Your task to perform on an android device: change the clock display to analog Image 0: 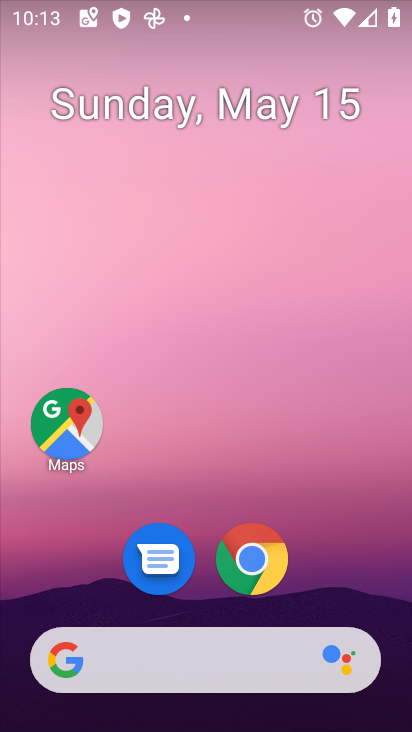
Step 0: drag from (319, 428) to (318, 353)
Your task to perform on an android device: change the clock display to analog Image 1: 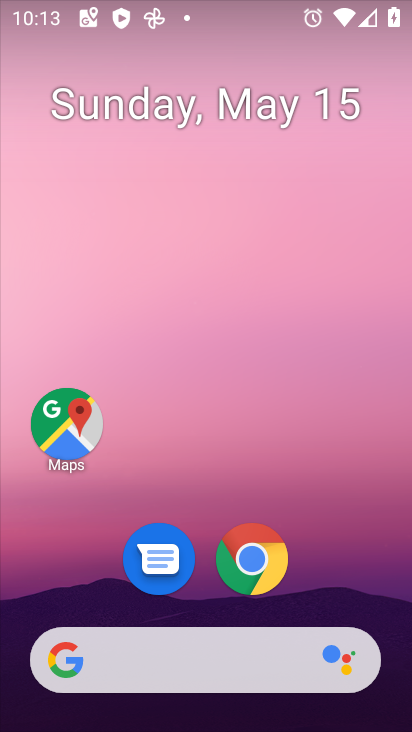
Step 1: drag from (317, 543) to (288, 159)
Your task to perform on an android device: change the clock display to analog Image 2: 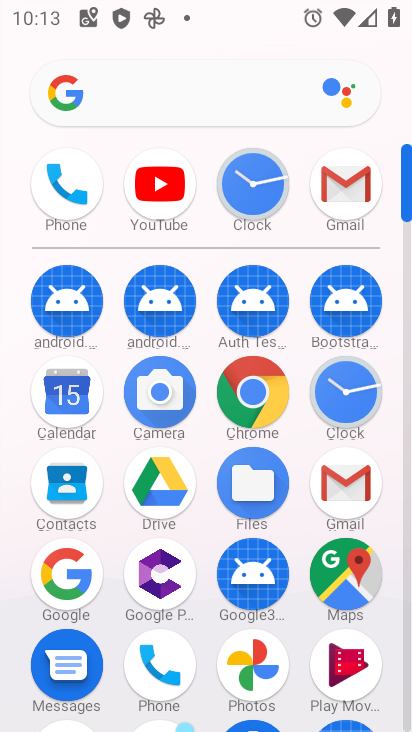
Step 2: drag from (345, 461) to (348, 228)
Your task to perform on an android device: change the clock display to analog Image 3: 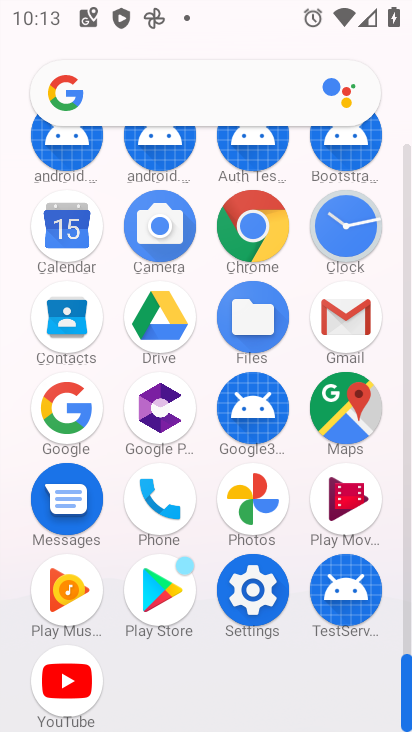
Step 3: click (361, 212)
Your task to perform on an android device: change the clock display to analog Image 4: 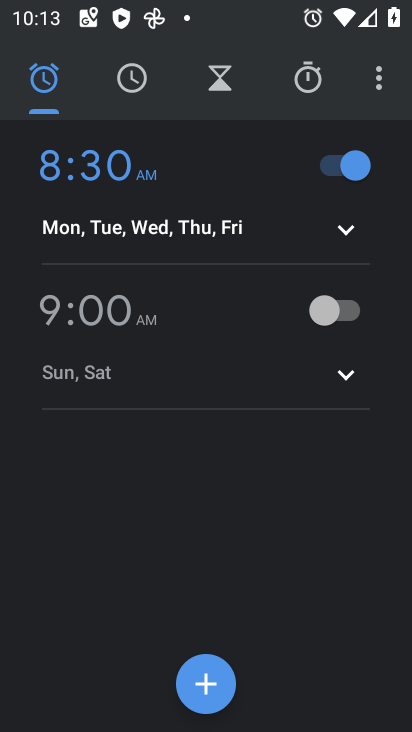
Step 4: click (373, 74)
Your task to perform on an android device: change the clock display to analog Image 5: 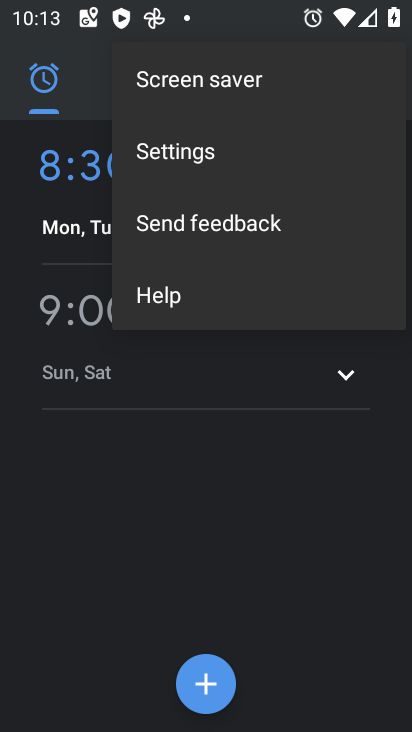
Step 5: click (232, 167)
Your task to perform on an android device: change the clock display to analog Image 6: 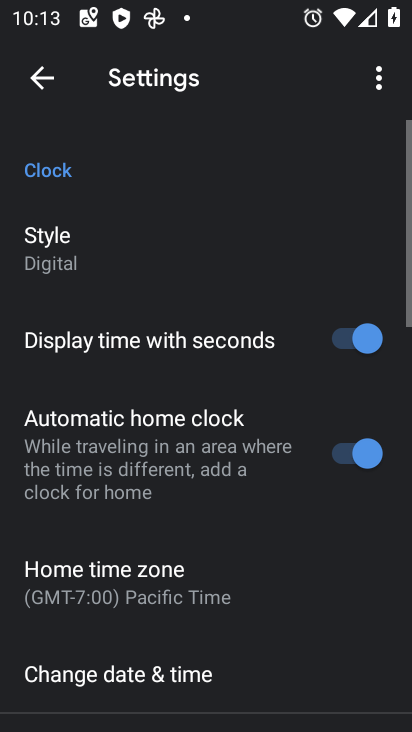
Step 6: click (154, 264)
Your task to perform on an android device: change the clock display to analog Image 7: 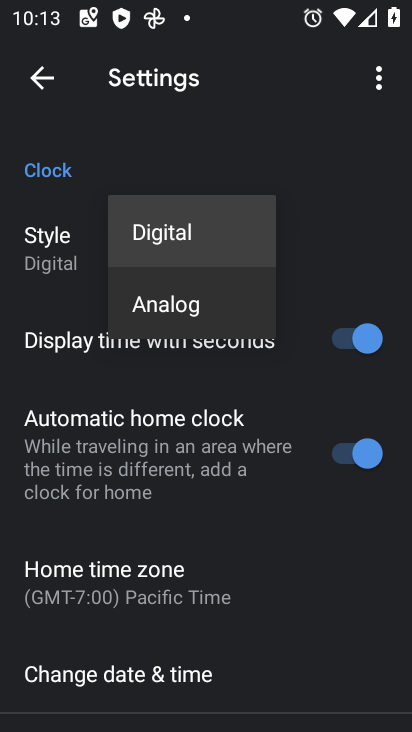
Step 7: click (158, 297)
Your task to perform on an android device: change the clock display to analog Image 8: 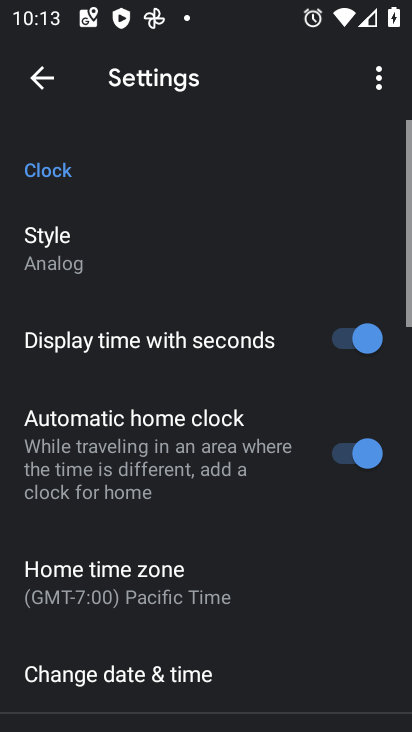
Step 8: task complete